Your task to perform on an android device: Open maps Image 0: 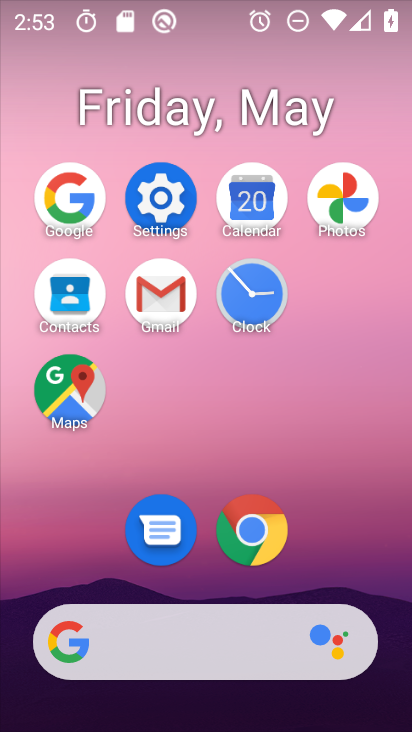
Step 0: click (78, 387)
Your task to perform on an android device: Open maps Image 1: 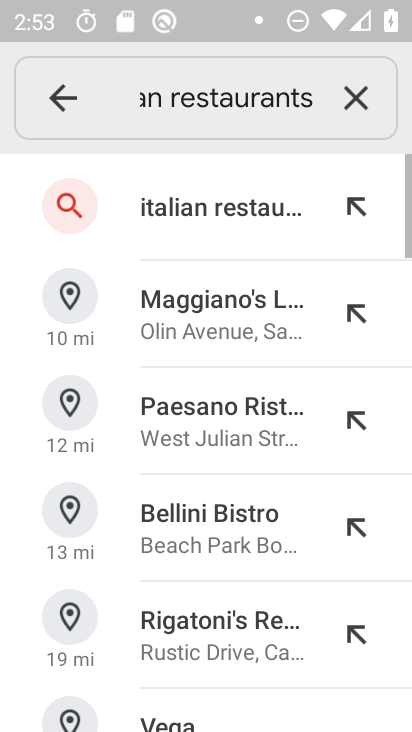
Step 1: task complete